Your task to perform on an android device: create a new album in the google photos Image 0: 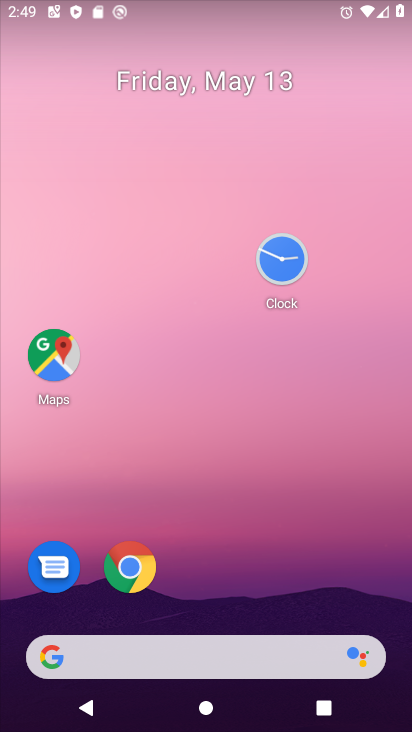
Step 0: click (252, 37)
Your task to perform on an android device: create a new album in the google photos Image 1: 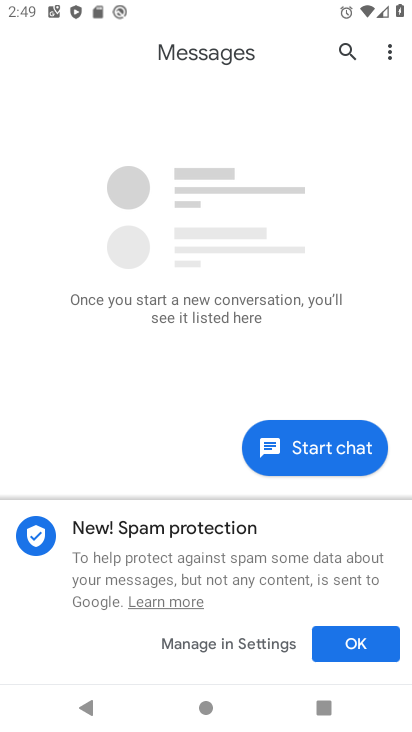
Step 1: press home button
Your task to perform on an android device: create a new album in the google photos Image 2: 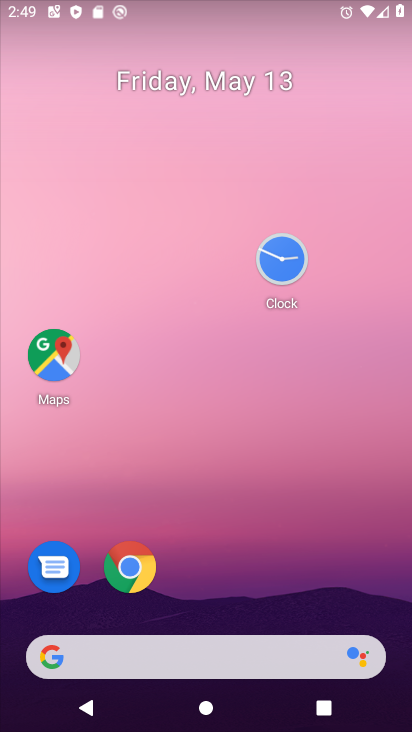
Step 2: drag from (231, 595) to (234, 184)
Your task to perform on an android device: create a new album in the google photos Image 3: 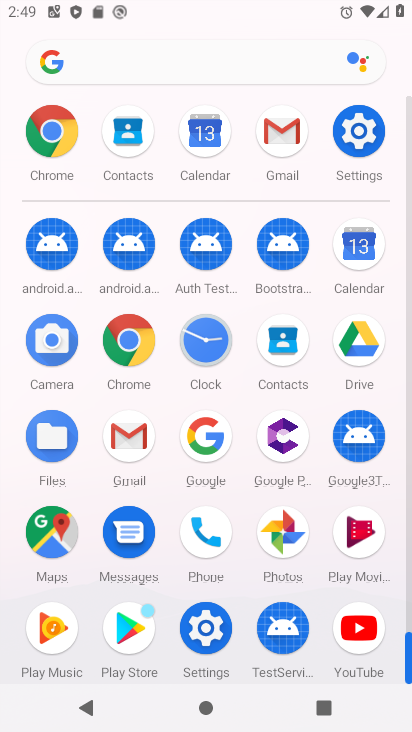
Step 3: click (281, 552)
Your task to perform on an android device: create a new album in the google photos Image 4: 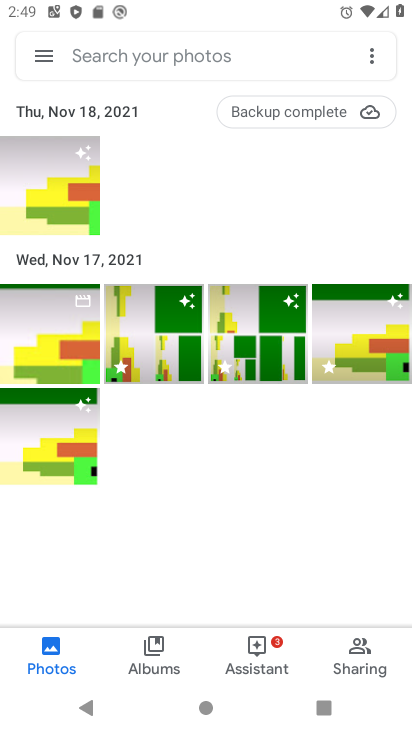
Step 4: click (152, 664)
Your task to perform on an android device: create a new album in the google photos Image 5: 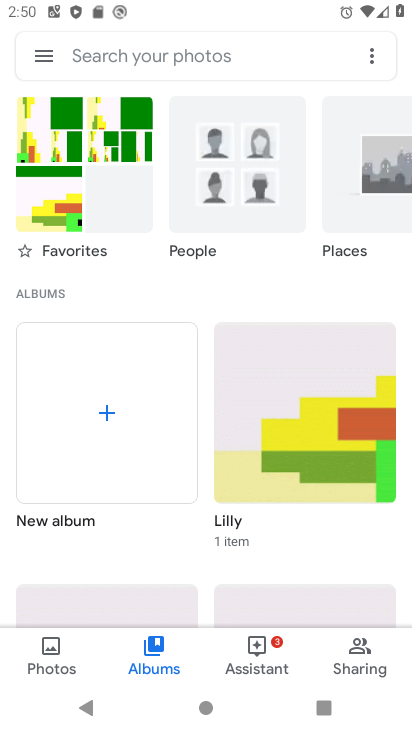
Step 5: click (110, 425)
Your task to perform on an android device: create a new album in the google photos Image 6: 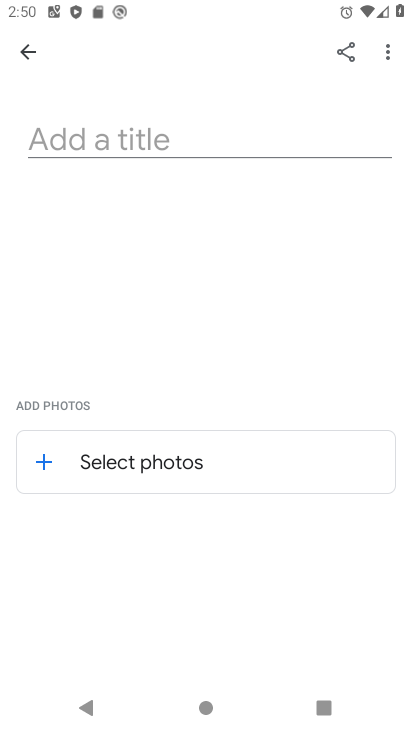
Step 6: click (165, 107)
Your task to perform on an android device: create a new album in the google photos Image 7: 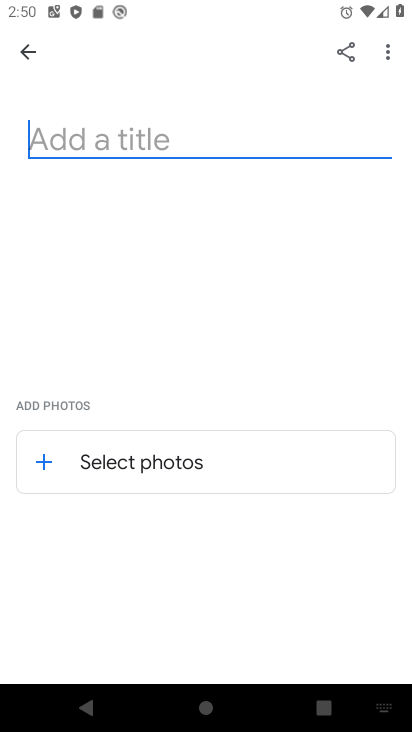
Step 7: type "dwed"
Your task to perform on an android device: create a new album in the google photos Image 8: 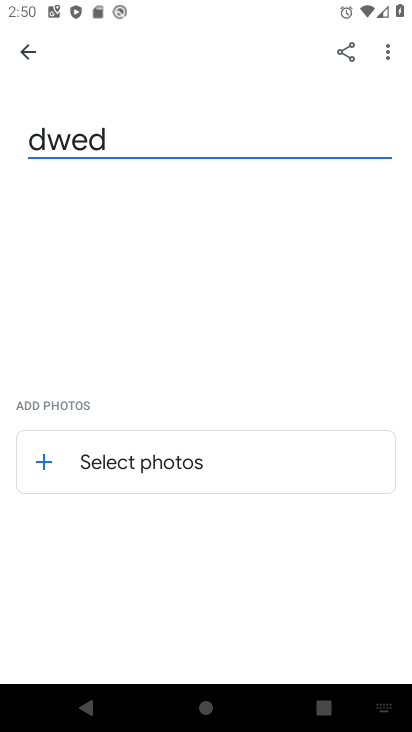
Step 8: click (245, 452)
Your task to perform on an android device: create a new album in the google photos Image 9: 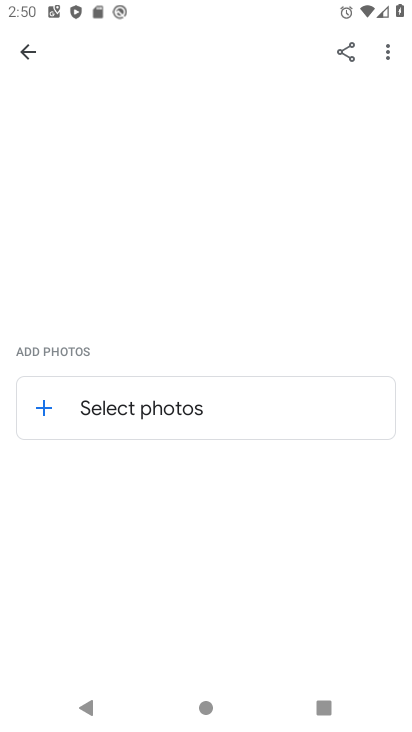
Step 9: click (107, 399)
Your task to perform on an android device: create a new album in the google photos Image 10: 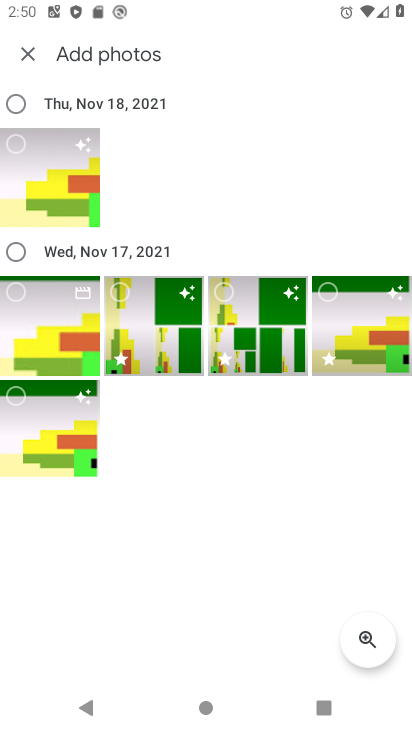
Step 10: click (17, 95)
Your task to perform on an android device: create a new album in the google photos Image 11: 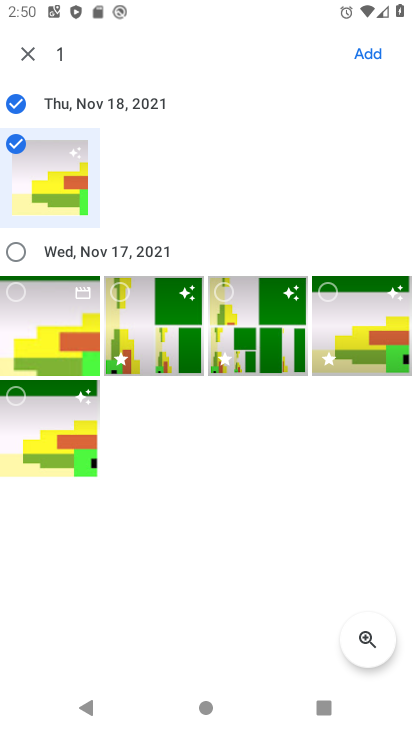
Step 11: click (8, 299)
Your task to perform on an android device: create a new album in the google photos Image 12: 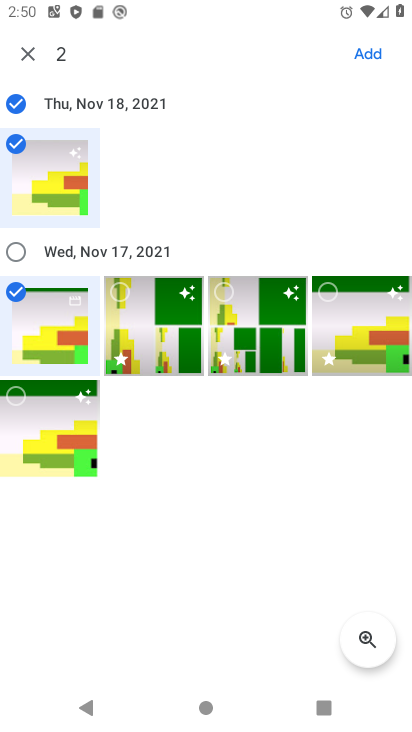
Step 12: click (349, 47)
Your task to perform on an android device: create a new album in the google photos Image 13: 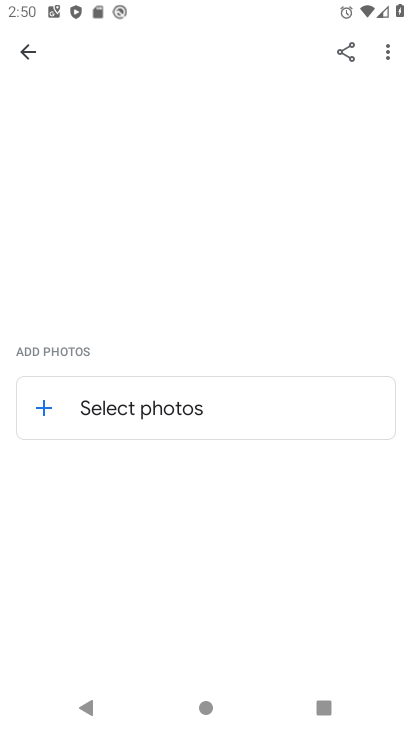
Step 13: task complete